Your task to perform on an android device: visit the assistant section in the google photos Image 0: 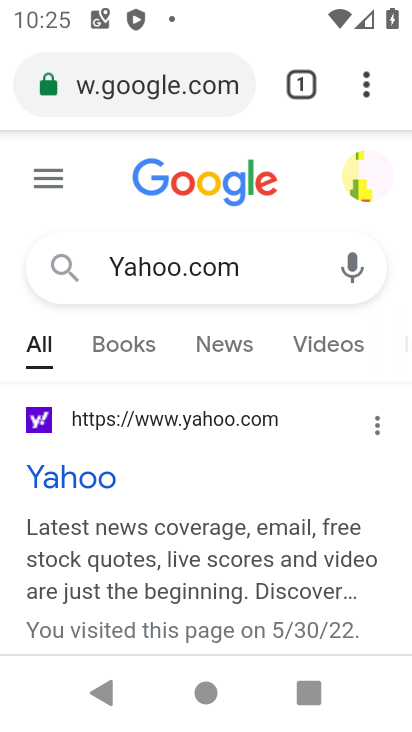
Step 0: press home button
Your task to perform on an android device: visit the assistant section in the google photos Image 1: 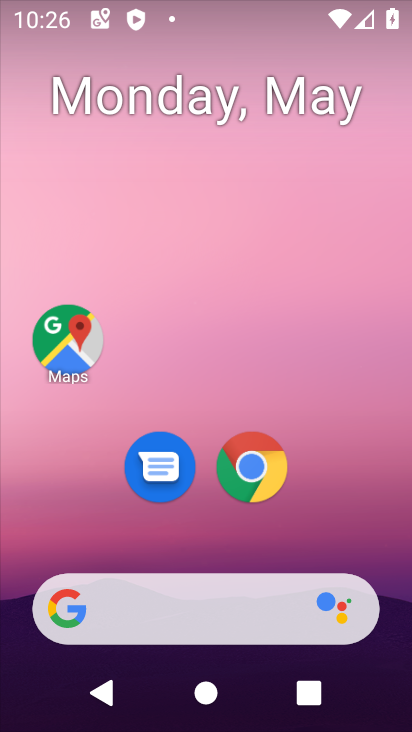
Step 1: drag from (398, 695) to (373, 102)
Your task to perform on an android device: visit the assistant section in the google photos Image 2: 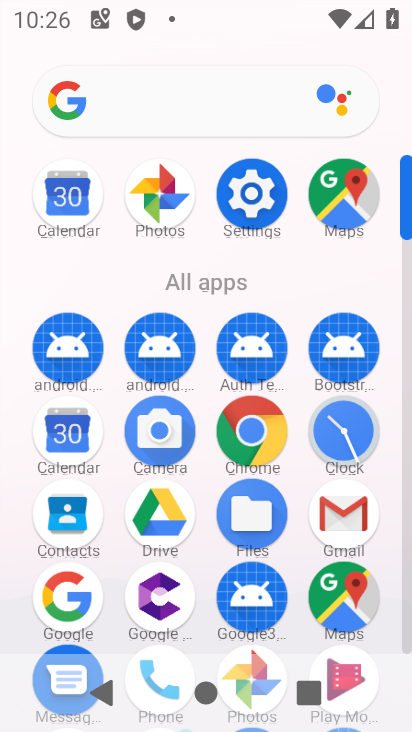
Step 2: click (191, 281)
Your task to perform on an android device: visit the assistant section in the google photos Image 3: 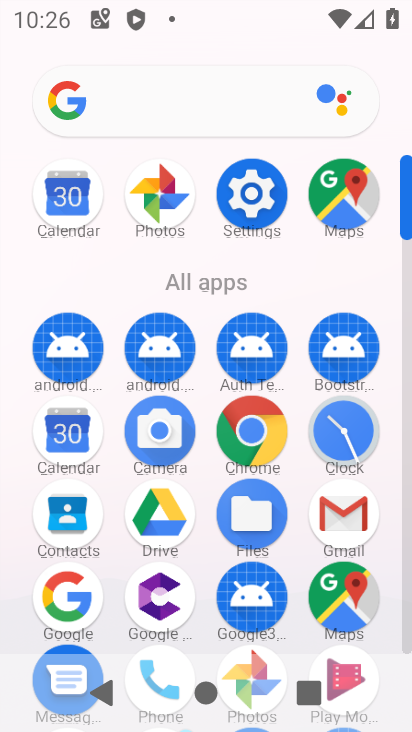
Step 3: click (165, 174)
Your task to perform on an android device: visit the assistant section in the google photos Image 4: 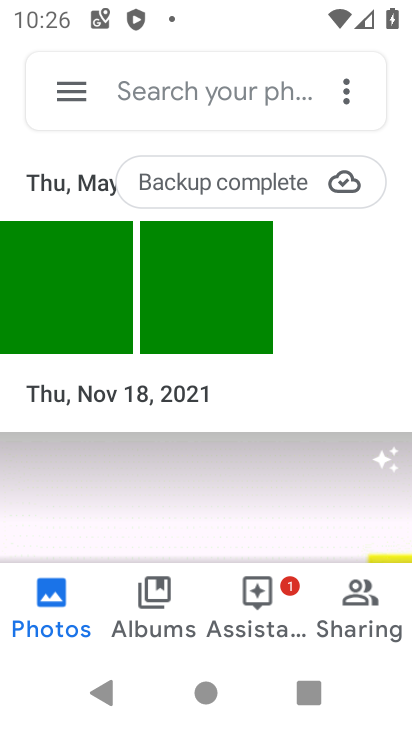
Step 4: click (252, 615)
Your task to perform on an android device: visit the assistant section in the google photos Image 5: 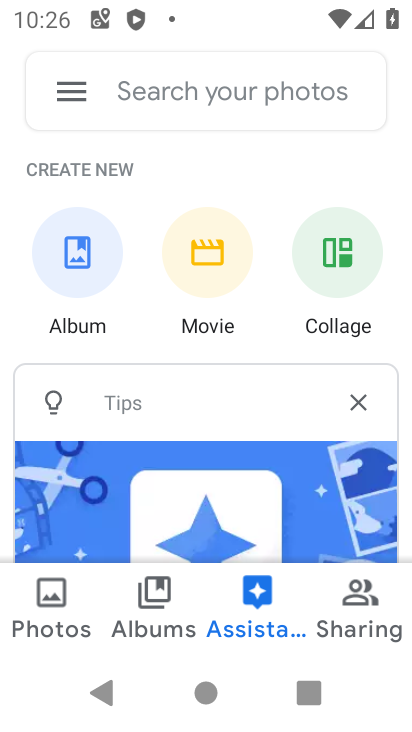
Step 5: task complete